Your task to perform on an android device: toggle wifi Image 0: 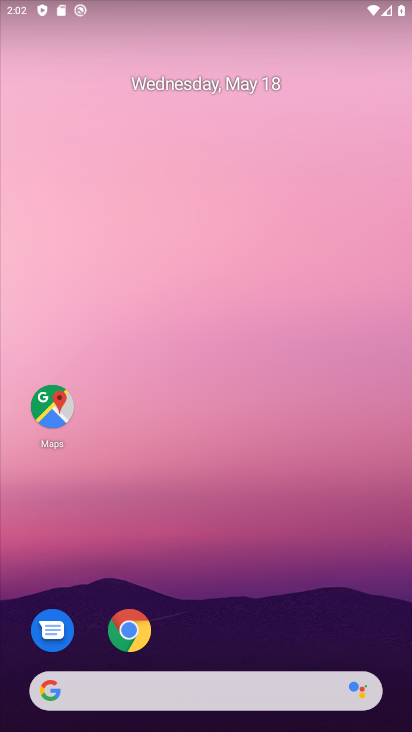
Step 0: drag from (191, 556) to (189, 161)
Your task to perform on an android device: toggle wifi Image 1: 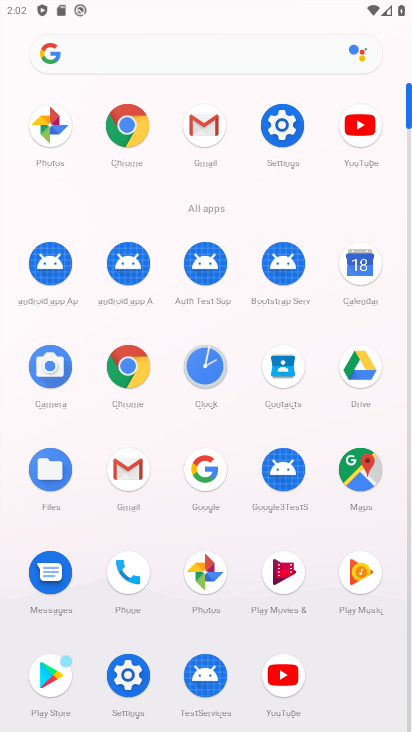
Step 1: click (270, 123)
Your task to perform on an android device: toggle wifi Image 2: 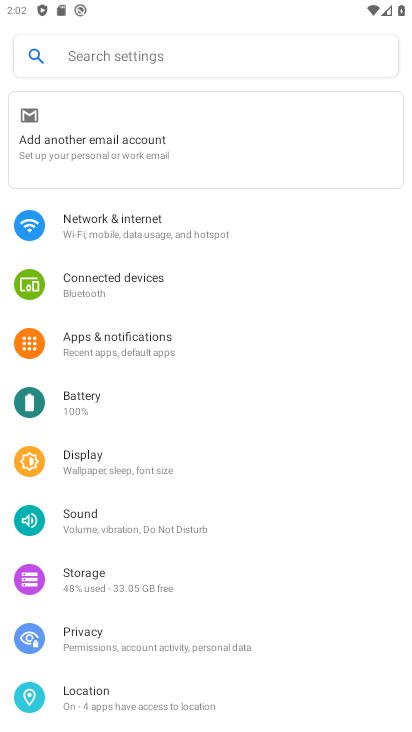
Step 2: click (191, 225)
Your task to perform on an android device: toggle wifi Image 3: 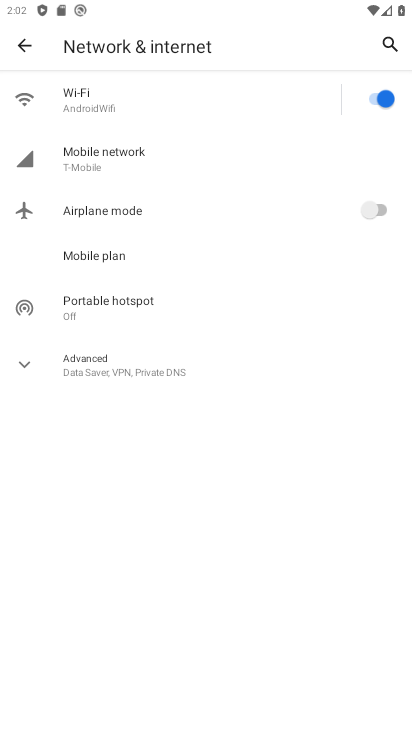
Step 3: click (367, 101)
Your task to perform on an android device: toggle wifi Image 4: 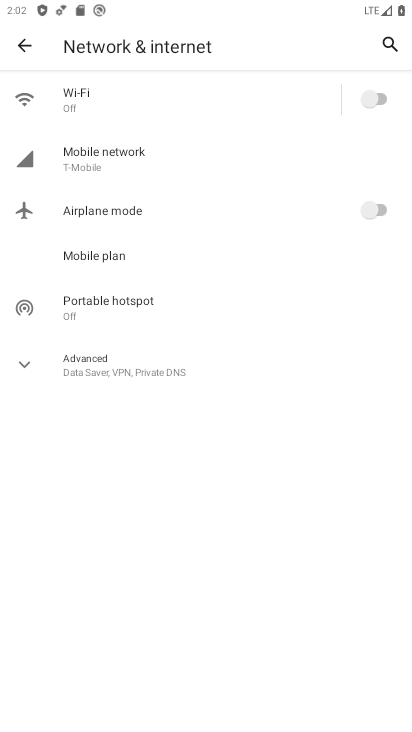
Step 4: task complete